Your task to perform on an android device: change the upload size in google photos Image 0: 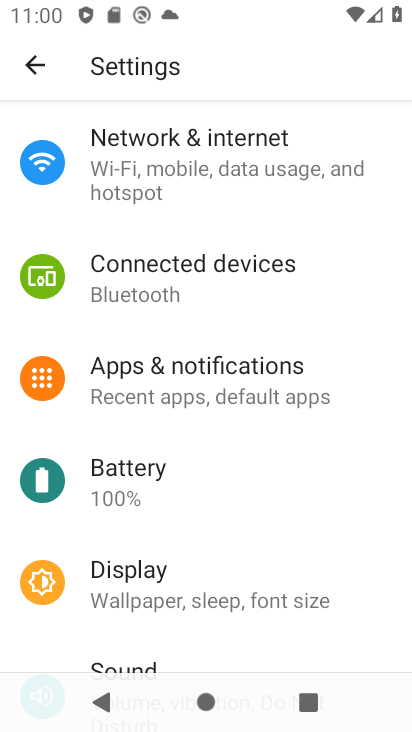
Step 0: press home button
Your task to perform on an android device: change the upload size in google photos Image 1: 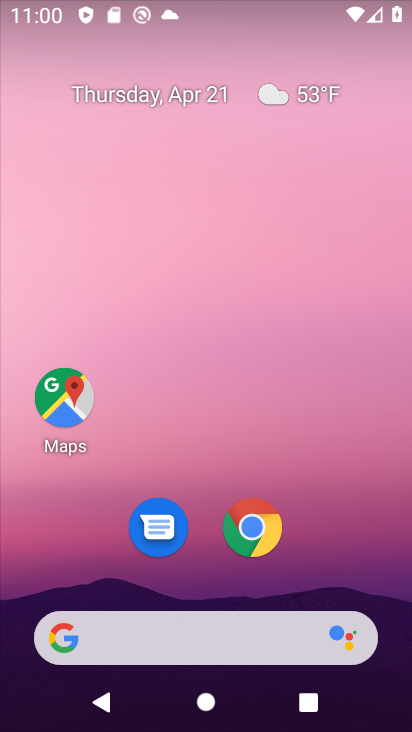
Step 1: drag from (331, 550) to (352, 138)
Your task to perform on an android device: change the upload size in google photos Image 2: 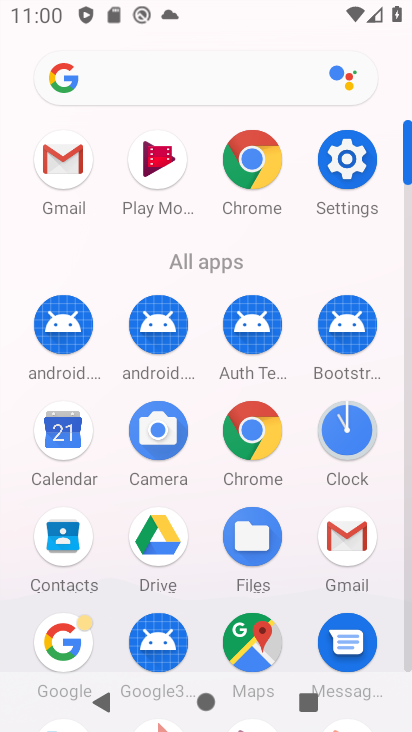
Step 2: drag from (391, 569) to (398, 269)
Your task to perform on an android device: change the upload size in google photos Image 3: 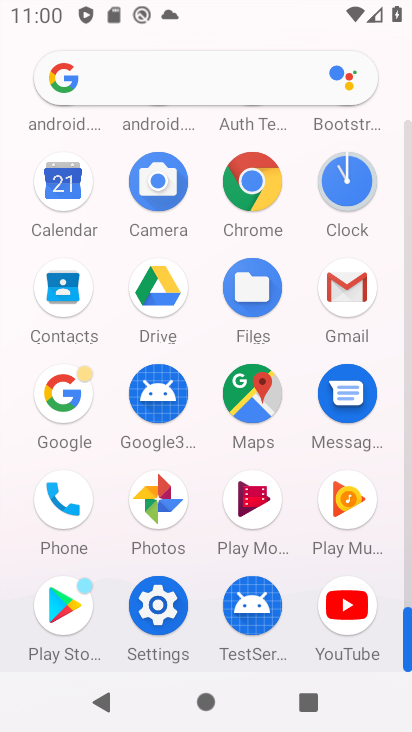
Step 3: click (157, 508)
Your task to perform on an android device: change the upload size in google photos Image 4: 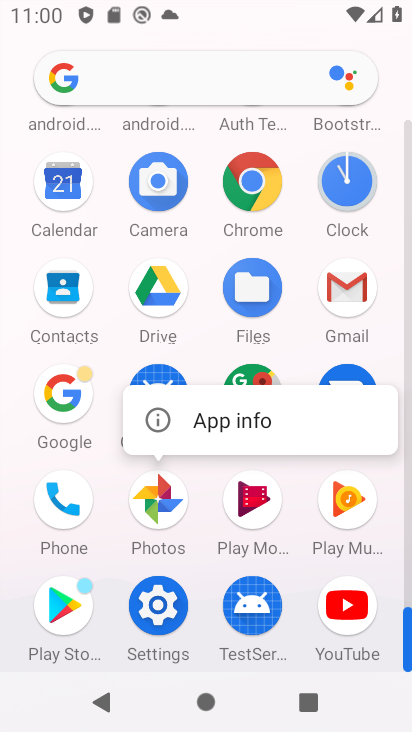
Step 4: click (152, 487)
Your task to perform on an android device: change the upload size in google photos Image 5: 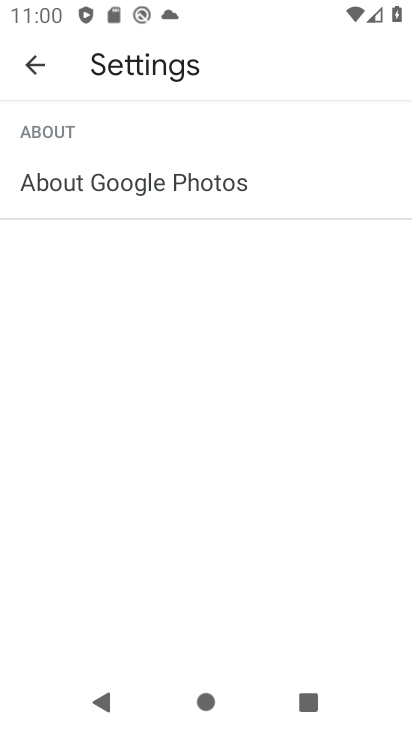
Step 5: click (41, 62)
Your task to perform on an android device: change the upload size in google photos Image 6: 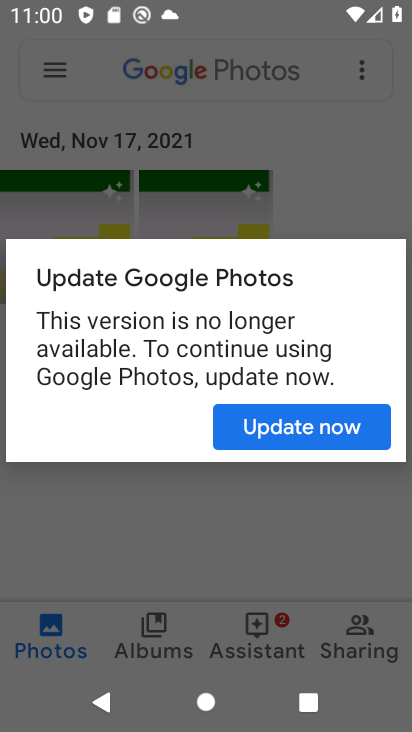
Step 6: click (297, 428)
Your task to perform on an android device: change the upload size in google photos Image 7: 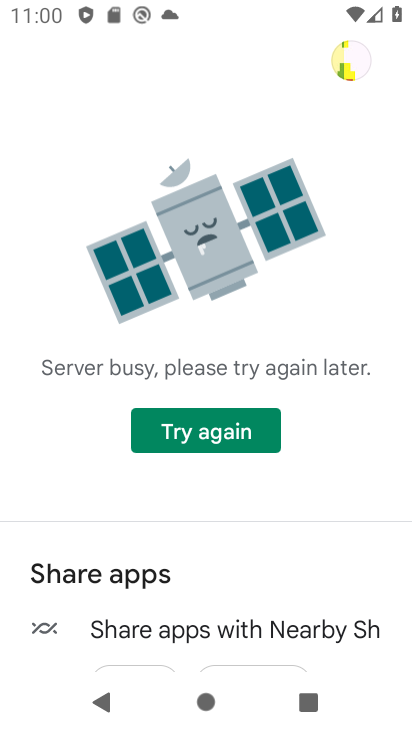
Step 7: click (243, 431)
Your task to perform on an android device: change the upload size in google photos Image 8: 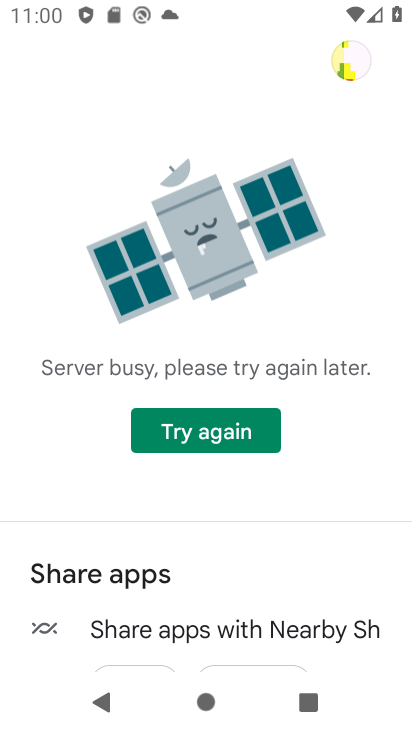
Step 8: task complete